Your task to perform on an android device: change the clock display to digital Image 0: 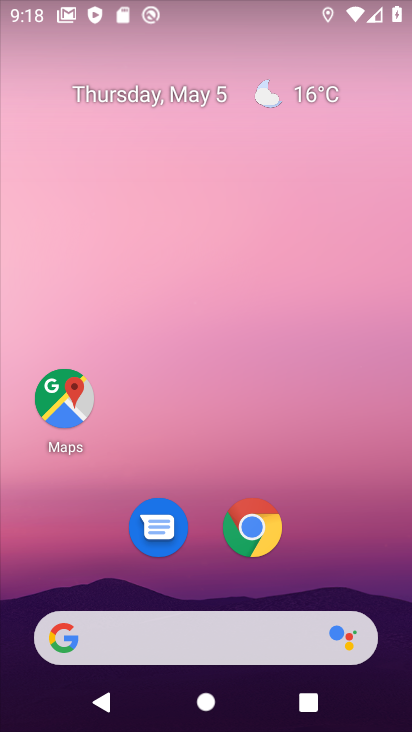
Step 0: drag from (88, 617) to (314, 128)
Your task to perform on an android device: change the clock display to digital Image 1: 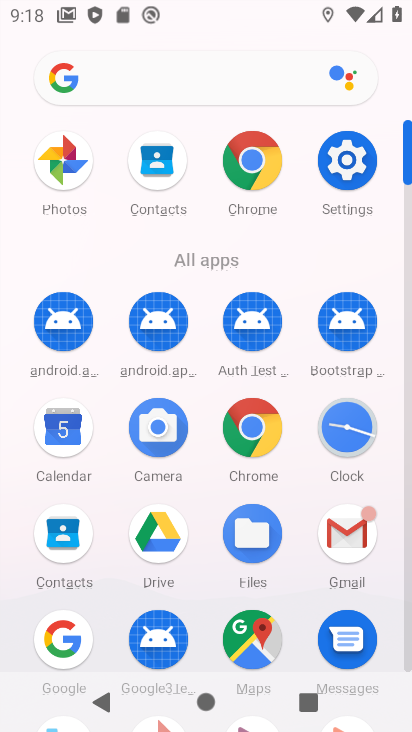
Step 1: click (350, 446)
Your task to perform on an android device: change the clock display to digital Image 2: 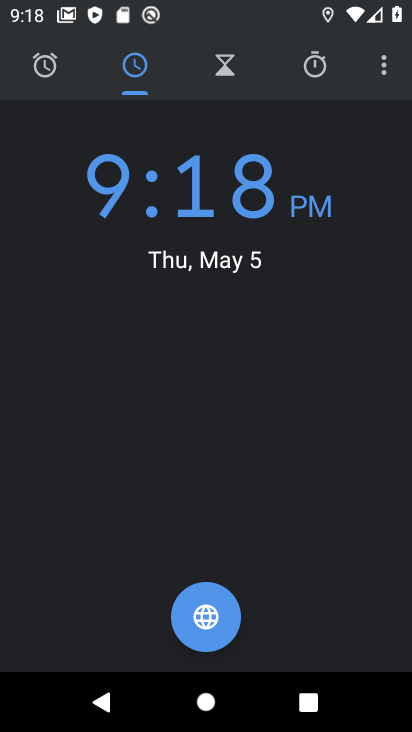
Step 2: click (390, 70)
Your task to perform on an android device: change the clock display to digital Image 3: 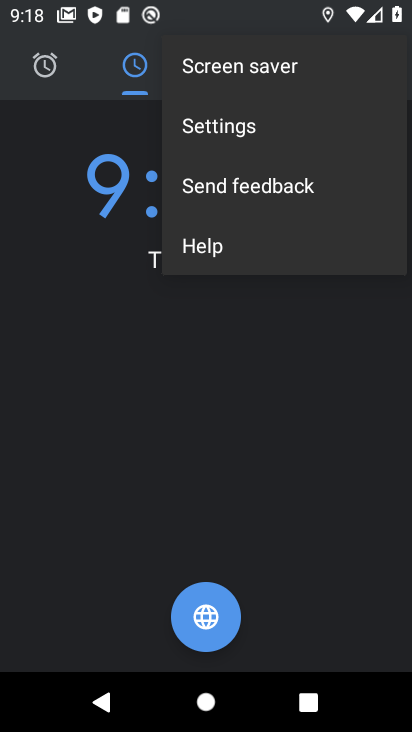
Step 3: click (302, 118)
Your task to perform on an android device: change the clock display to digital Image 4: 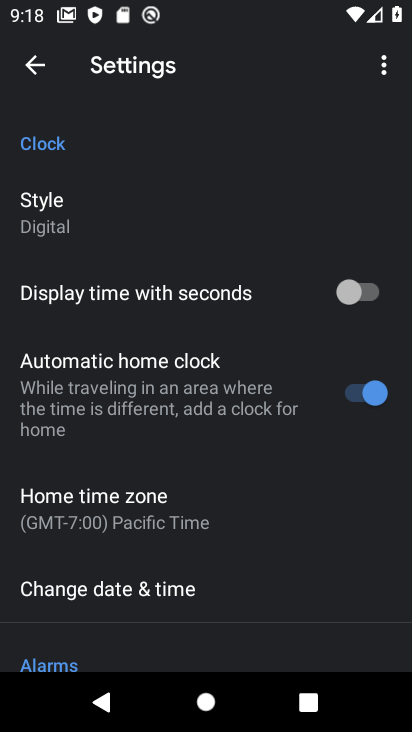
Step 4: task complete